Your task to perform on an android device: toggle improve location accuracy Image 0: 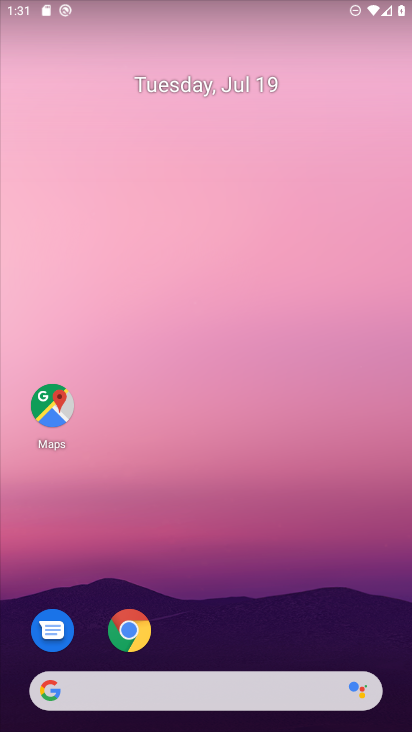
Step 0: press home button
Your task to perform on an android device: toggle improve location accuracy Image 1: 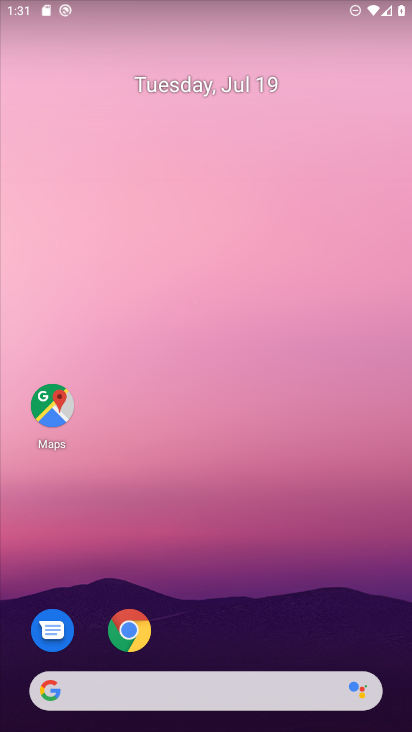
Step 1: drag from (209, 693) to (326, 150)
Your task to perform on an android device: toggle improve location accuracy Image 2: 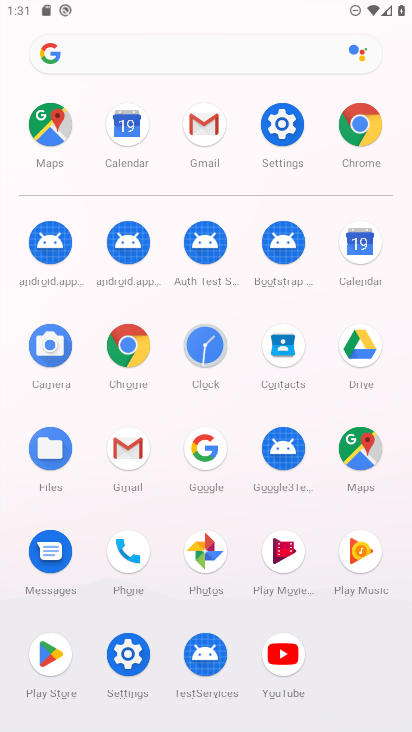
Step 2: click (285, 121)
Your task to perform on an android device: toggle improve location accuracy Image 3: 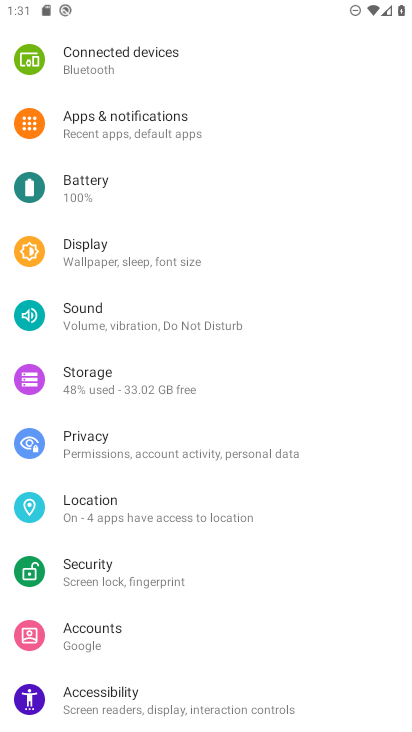
Step 3: click (121, 511)
Your task to perform on an android device: toggle improve location accuracy Image 4: 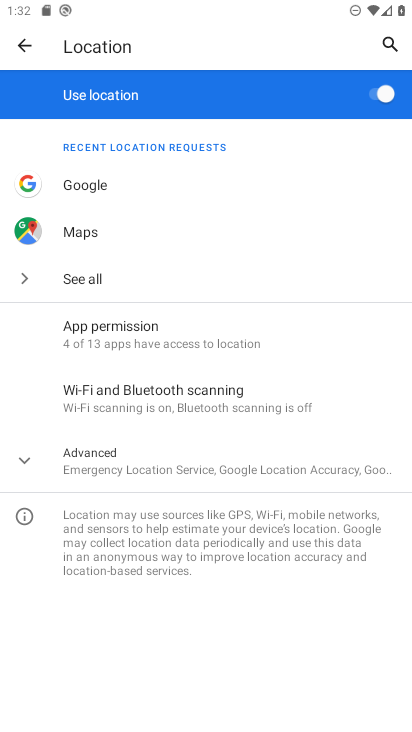
Step 4: click (111, 455)
Your task to perform on an android device: toggle improve location accuracy Image 5: 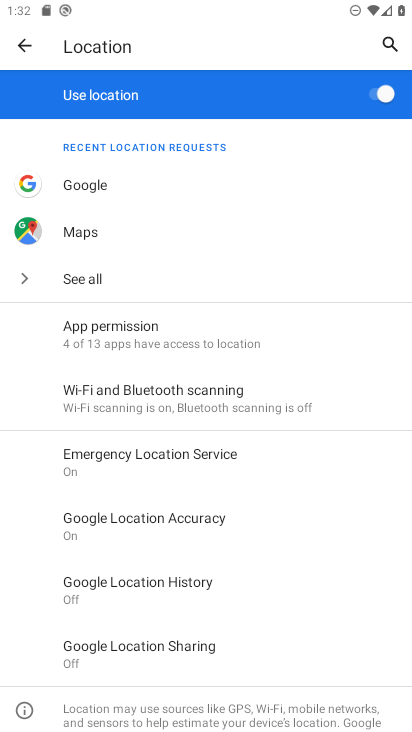
Step 5: click (176, 518)
Your task to perform on an android device: toggle improve location accuracy Image 6: 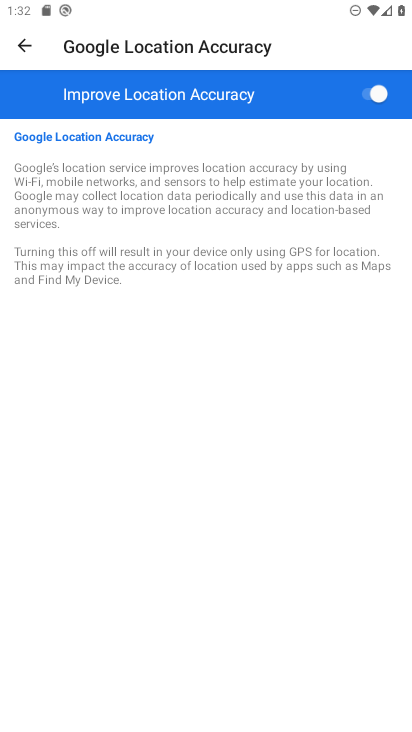
Step 6: click (371, 91)
Your task to perform on an android device: toggle improve location accuracy Image 7: 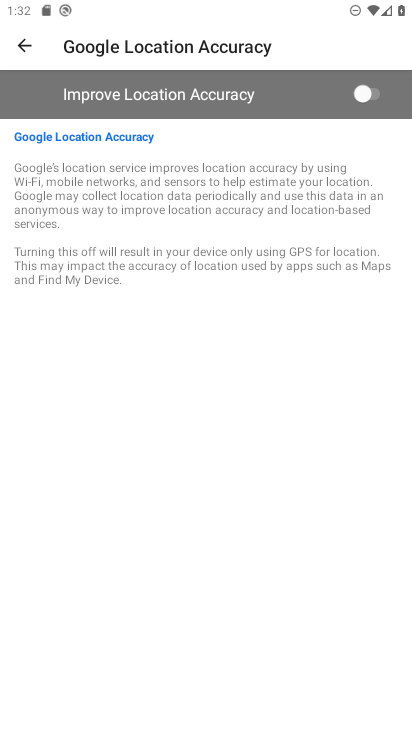
Step 7: task complete